Your task to perform on an android device: Go to location settings Image 0: 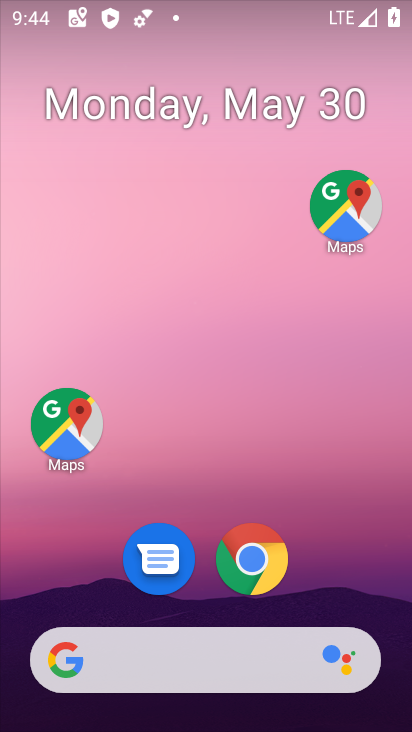
Step 0: drag from (343, 552) to (243, 69)
Your task to perform on an android device: Go to location settings Image 1: 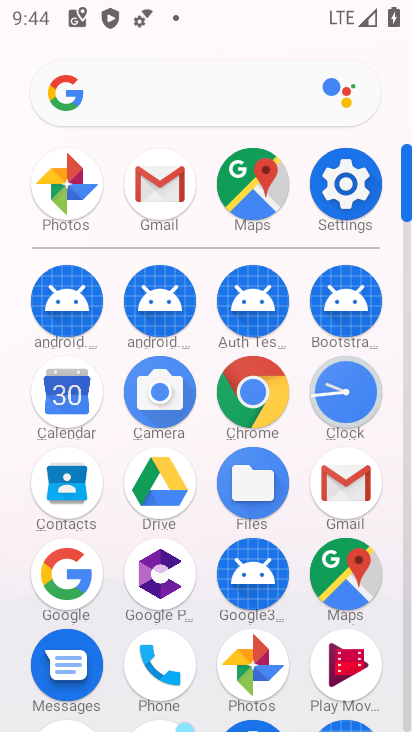
Step 1: click (363, 187)
Your task to perform on an android device: Go to location settings Image 2: 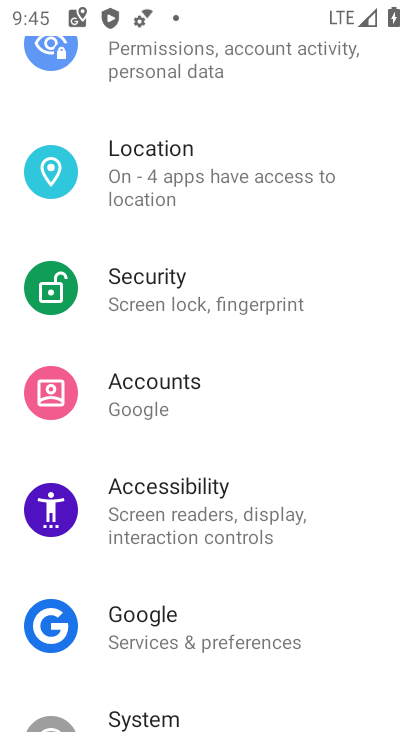
Step 2: click (175, 189)
Your task to perform on an android device: Go to location settings Image 3: 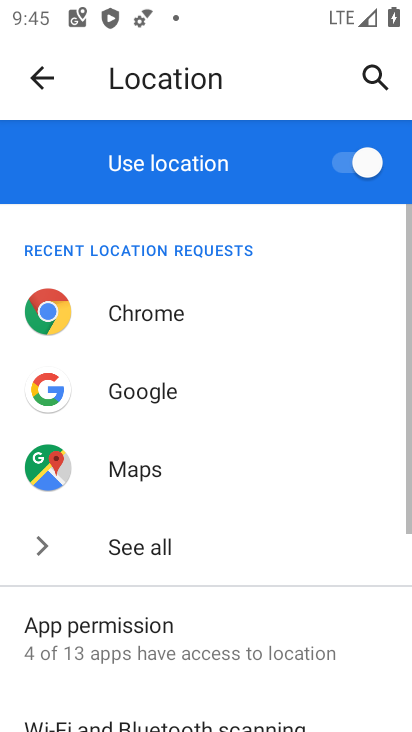
Step 3: task complete